Your task to perform on an android device: change text size in settings app Image 0: 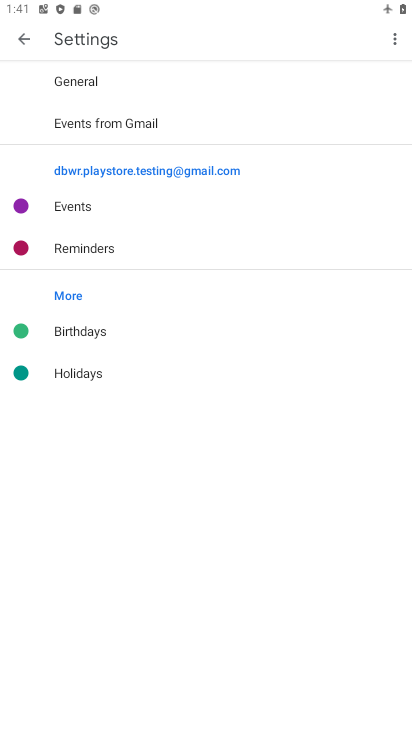
Step 0: press home button
Your task to perform on an android device: change text size in settings app Image 1: 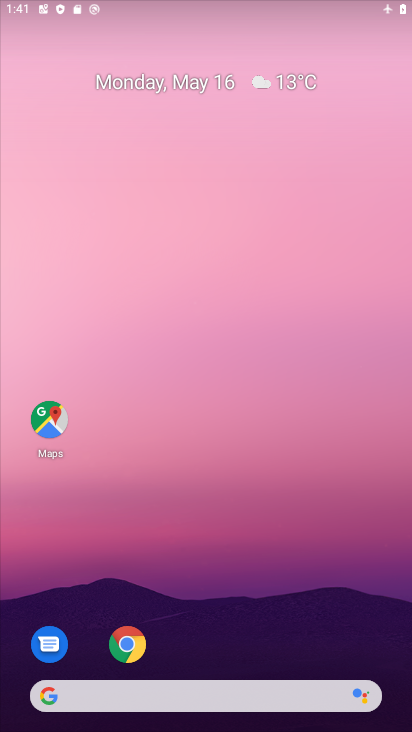
Step 1: drag from (234, 650) to (206, 192)
Your task to perform on an android device: change text size in settings app Image 2: 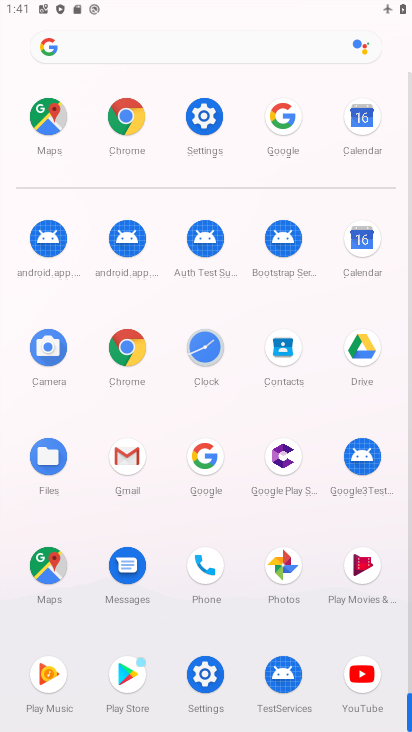
Step 2: click (212, 115)
Your task to perform on an android device: change text size in settings app Image 3: 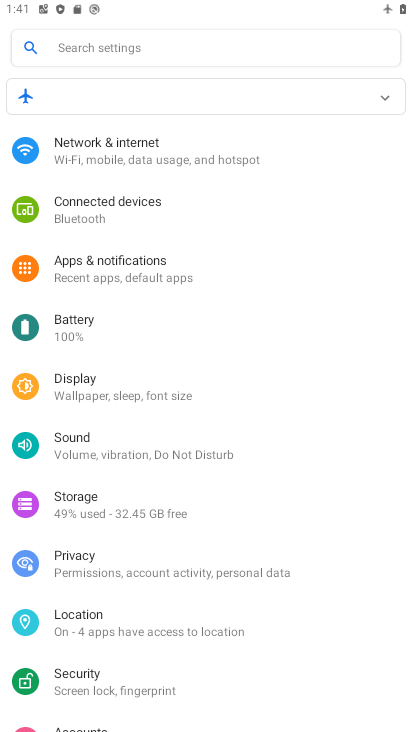
Step 3: click (195, 394)
Your task to perform on an android device: change text size in settings app Image 4: 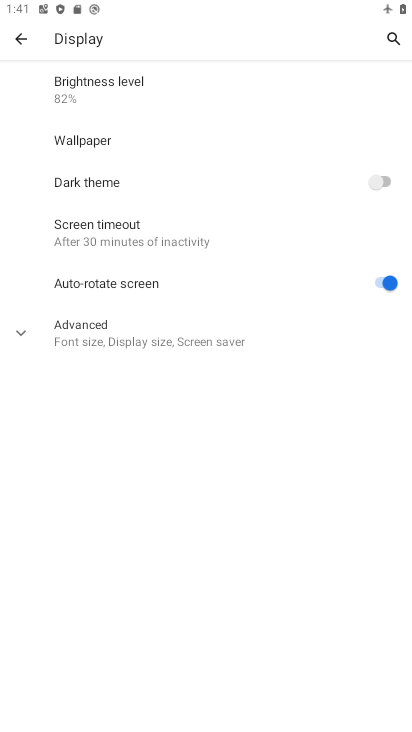
Step 4: click (62, 347)
Your task to perform on an android device: change text size in settings app Image 5: 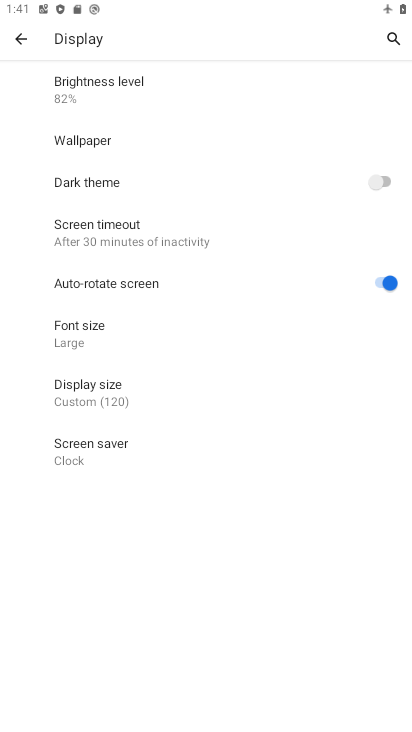
Step 5: click (86, 346)
Your task to perform on an android device: change text size in settings app Image 6: 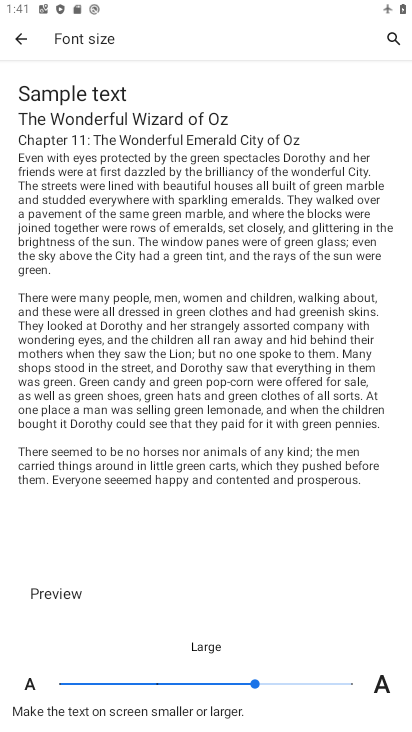
Step 6: click (340, 683)
Your task to perform on an android device: change text size in settings app Image 7: 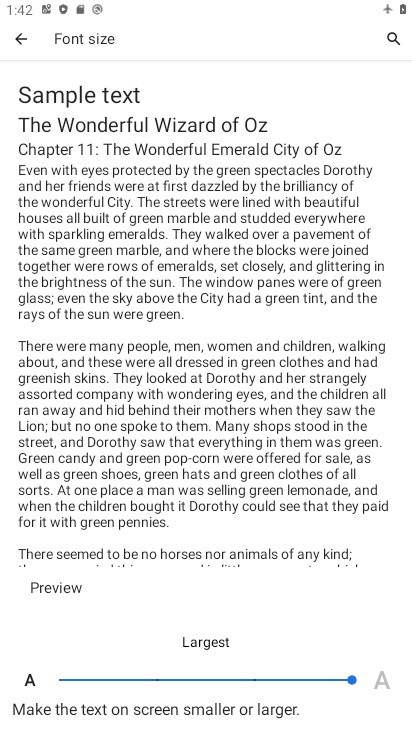
Step 7: task complete